Your task to perform on an android device: Go to Yahoo.com Image 0: 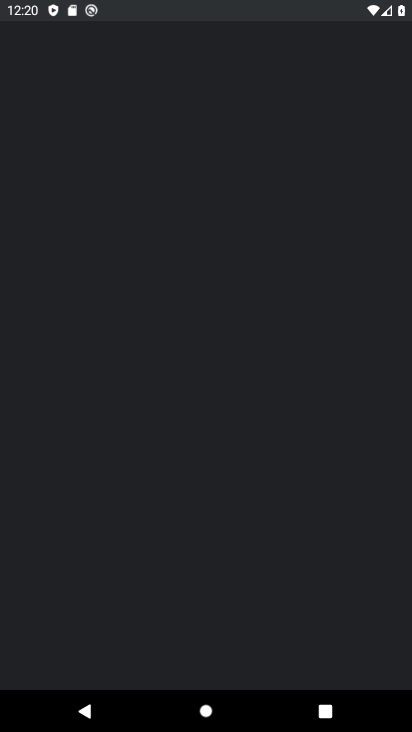
Step 0: drag from (224, 623) to (225, 232)
Your task to perform on an android device: Go to Yahoo.com Image 1: 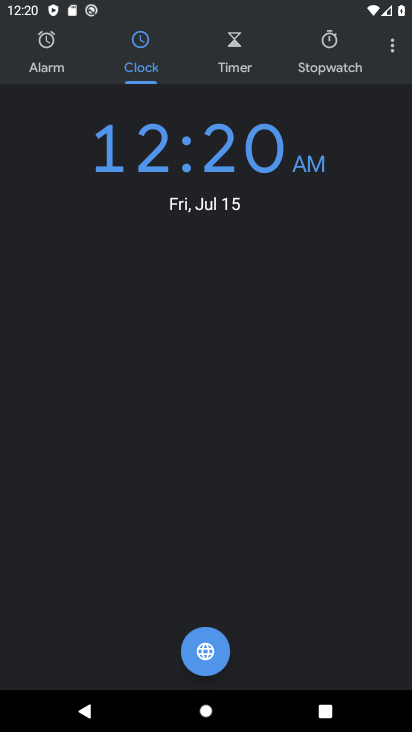
Step 1: press home button
Your task to perform on an android device: Go to Yahoo.com Image 2: 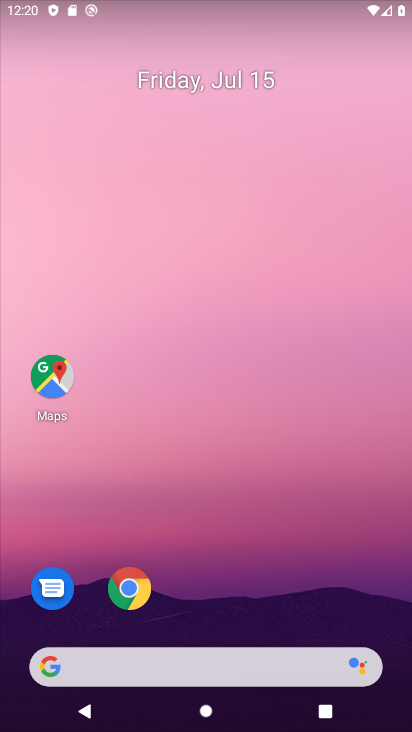
Step 2: click (129, 587)
Your task to perform on an android device: Go to Yahoo.com Image 3: 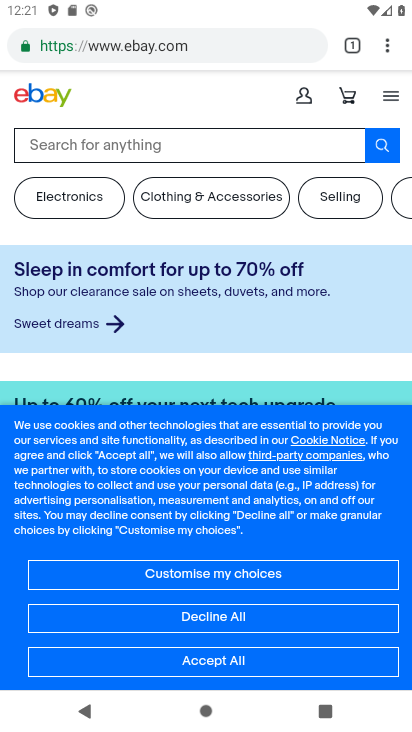
Step 3: click (240, 45)
Your task to perform on an android device: Go to Yahoo.com Image 4: 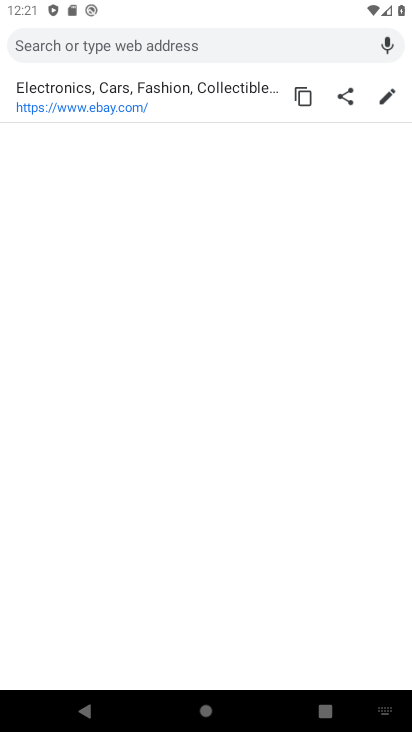
Step 4: type "yahoo.com"
Your task to perform on an android device: Go to Yahoo.com Image 5: 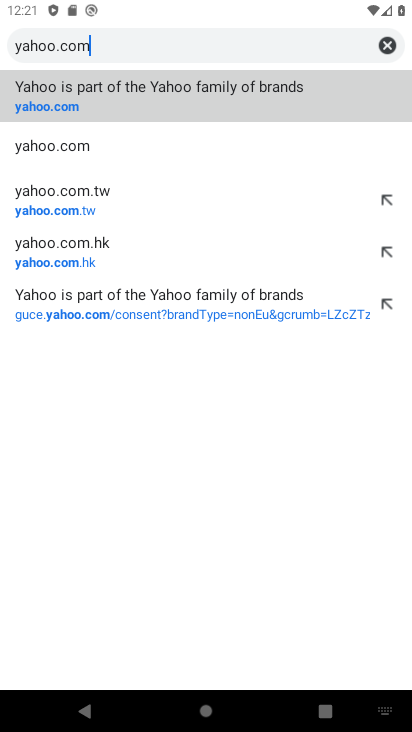
Step 5: click (43, 96)
Your task to perform on an android device: Go to Yahoo.com Image 6: 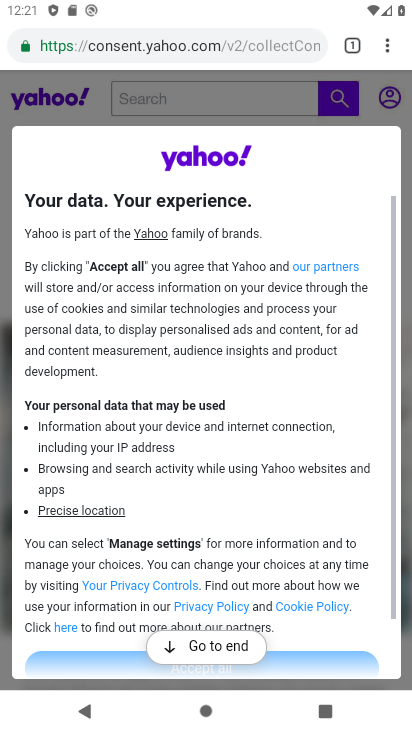
Step 6: task complete